Your task to perform on an android device: change your default location settings in chrome Image 0: 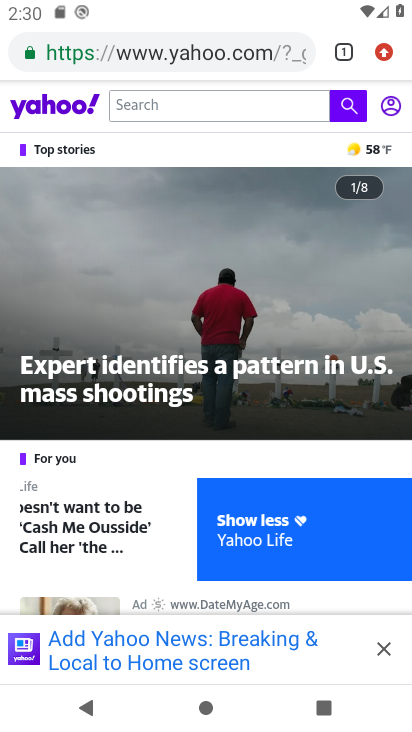
Step 0: drag from (385, 54) to (239, 611)
Your task to perform on an android device: change your default location settings in chrome Image 1: 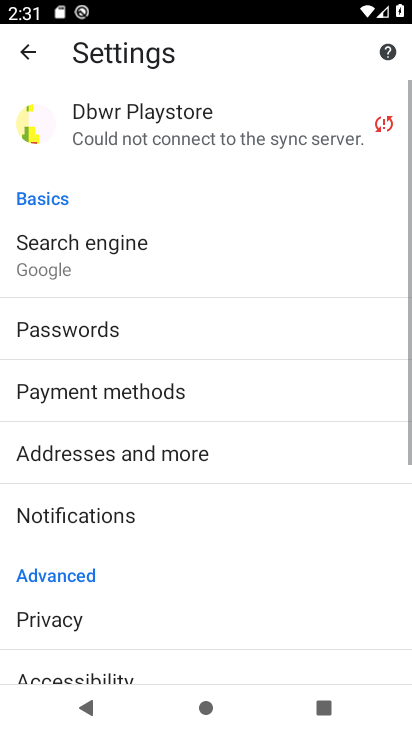
Step 1: drag from (206, 587) to (202, 188)
Your task to perform on an android device: change your default location settings in chrome Image 2: 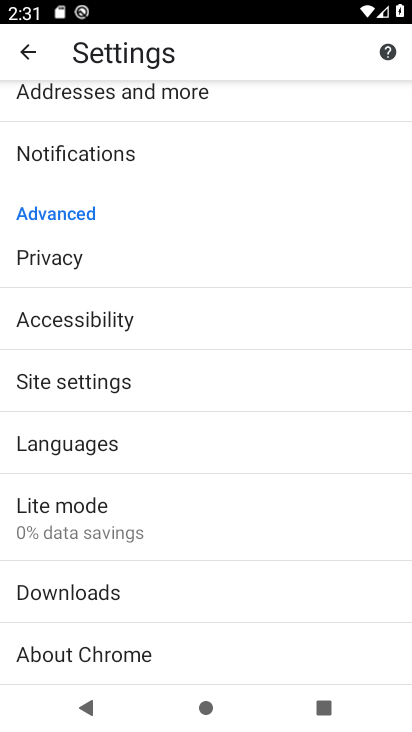
Step 2: click (139, 376)
Your task to perform on an android device: change your default location settings in chrome Image 3: 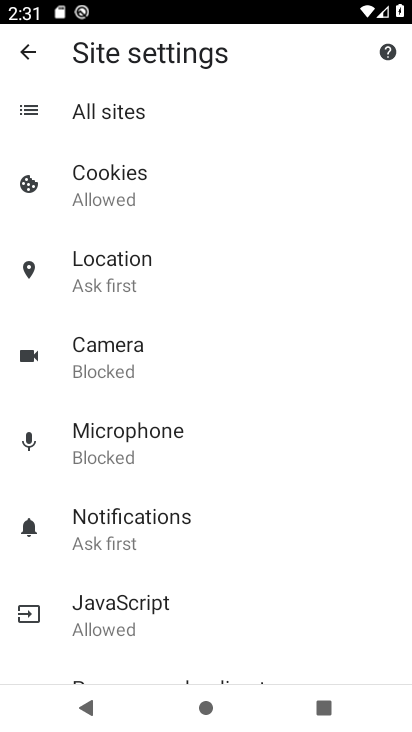
Step 3: click (162, 258)
Your task to perform on an android device: change your default location settings in chrome Image 4: 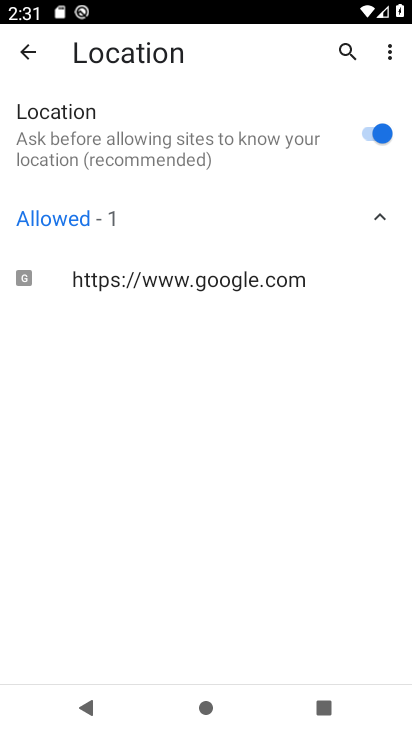
Step 4: task complete